Your task to perform on an android device: Search for "logitech g903" on bestbuy, select the first entry, add it to the cart, then select checkout. Image 0: 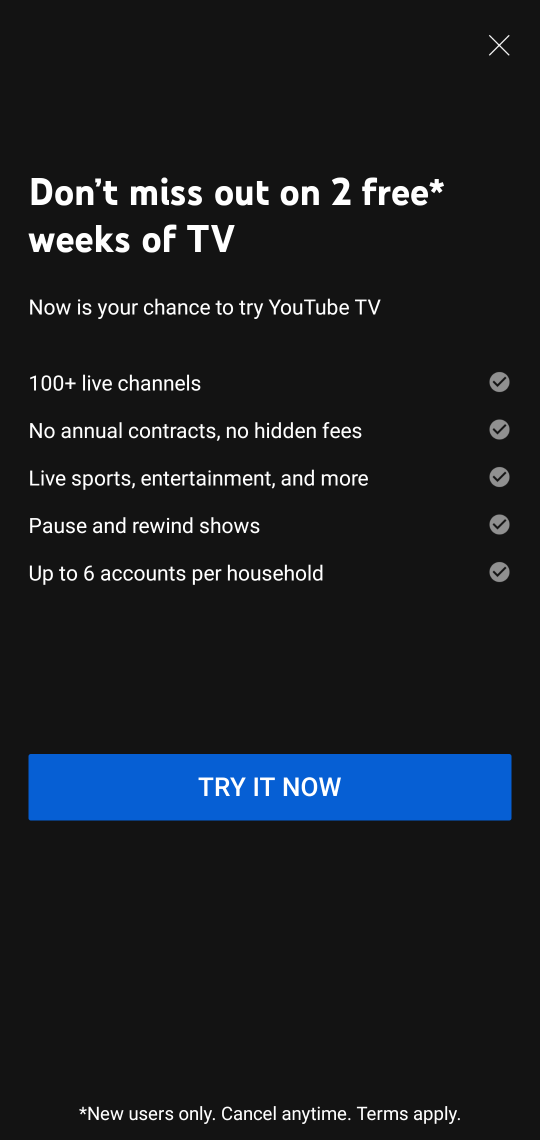
Step 0: press home button
Your task to perform on an android device: Search for "logitech g903" on bestbuy, select the first entry, add it to the cart, then select checkout. Image 1: 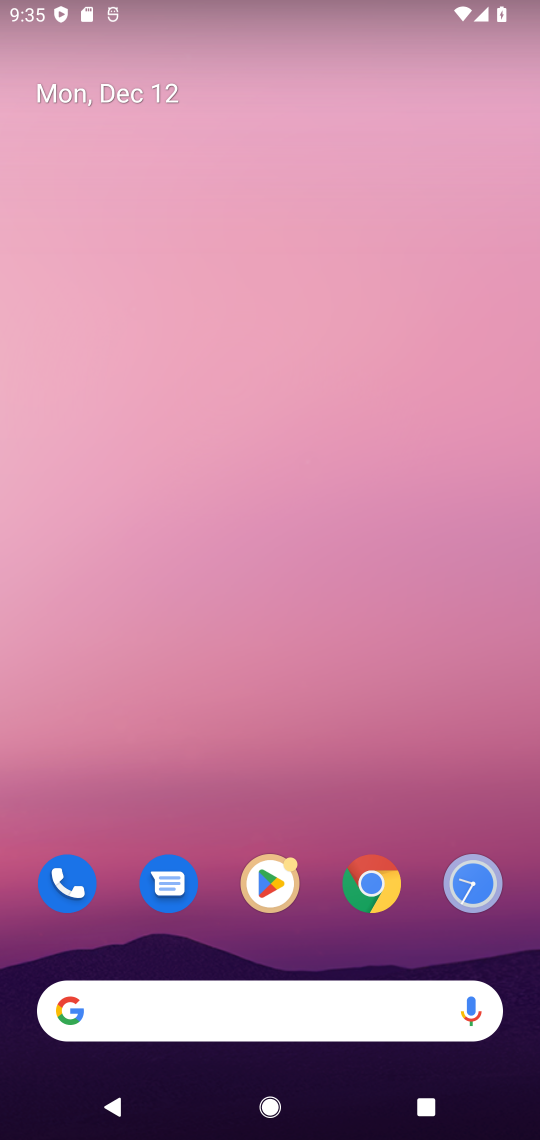
Step 1: click (207, 1008)
Your task to perform on an android device: Search for "logitech g903" on bestbuy, select the first entry, add it to the cart, then select checkout. Image 2: 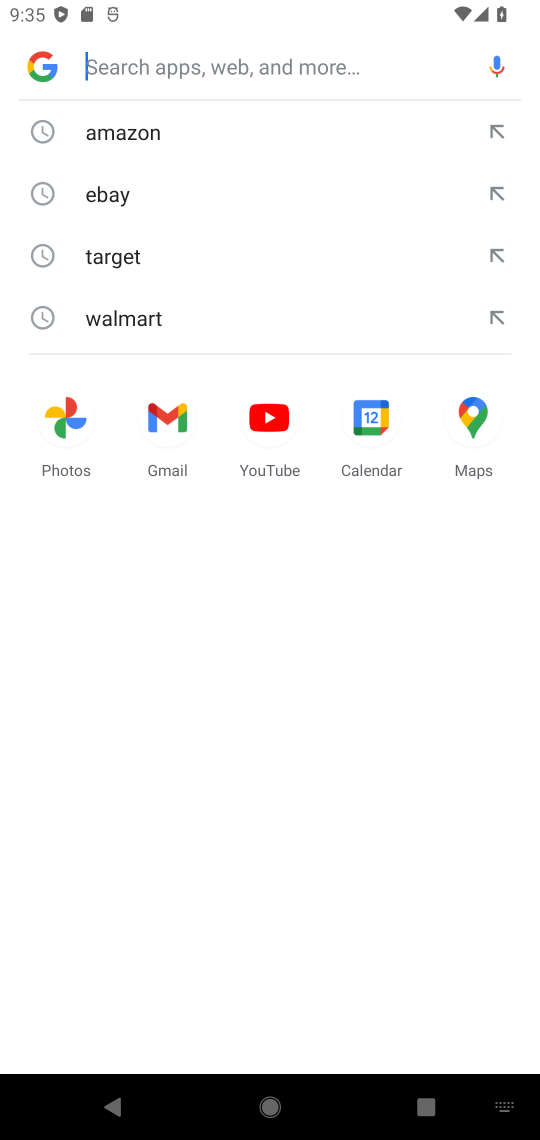
Step 2: type "bestbuy"
Your task to perform on an android device: Search for "logitech g903" on bestbuy, select the first entry, add it to the cart, then select checkout. Image 3: 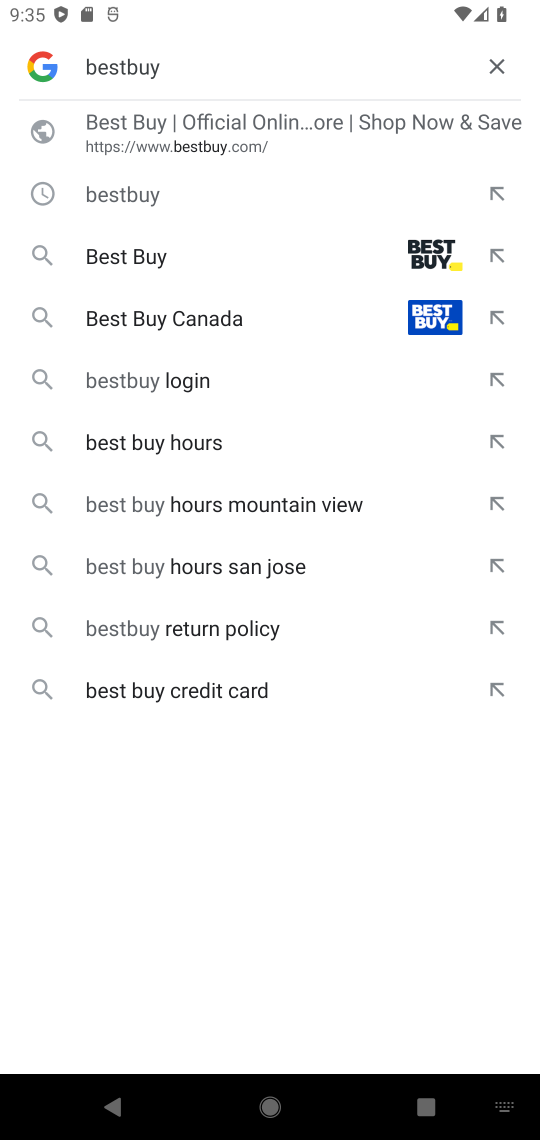
Step 3: click (188, 142)
Your task to perform on an android device: Search for "logitech g903" on bestbuy, select the first entry, add it to the cart, then select checkout. Image 4: 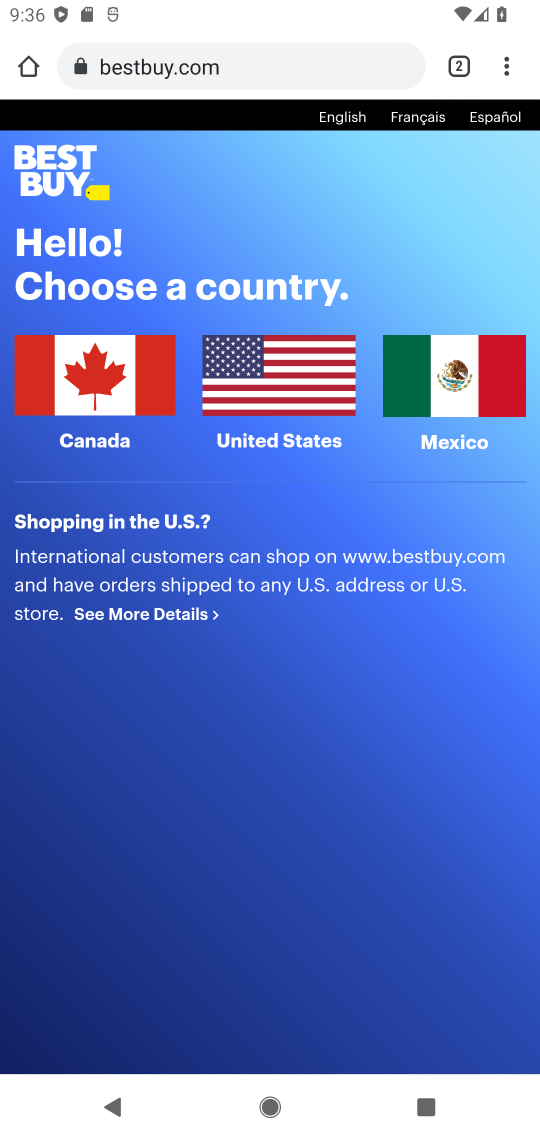
Step 4: click (287, 405)
Your task to perform on an android device: Search for "logitech g903" on bestbuy, select the first entry, add it to the cart, then select checkout. Image 5: 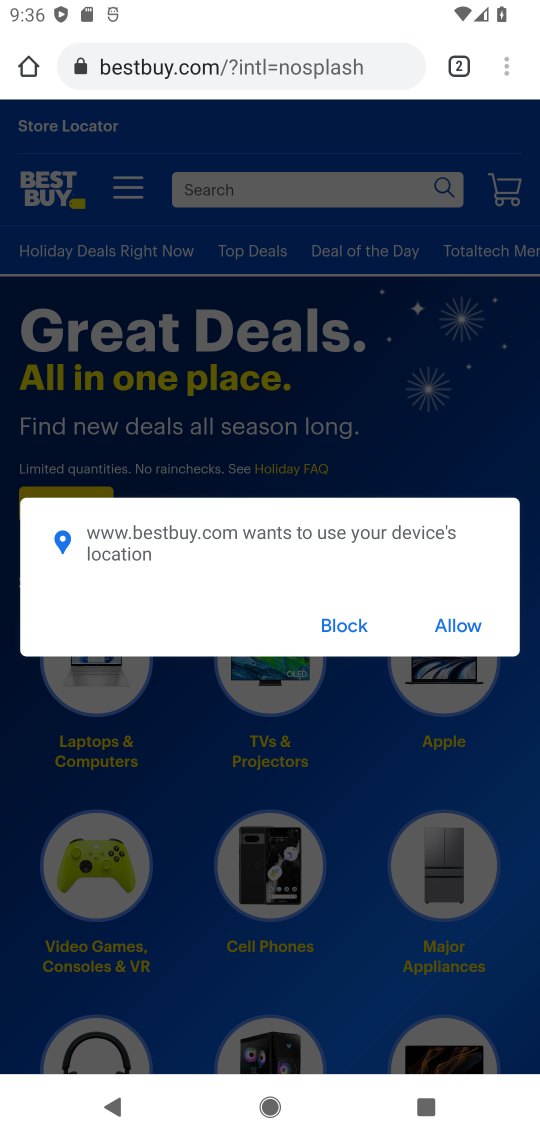
Step 5: click (356, 626)
Your task to perform on an android device: Search for "logitech g903" on bestbuy, select the first entry, add it to the cart, then select checkout. Image 6: 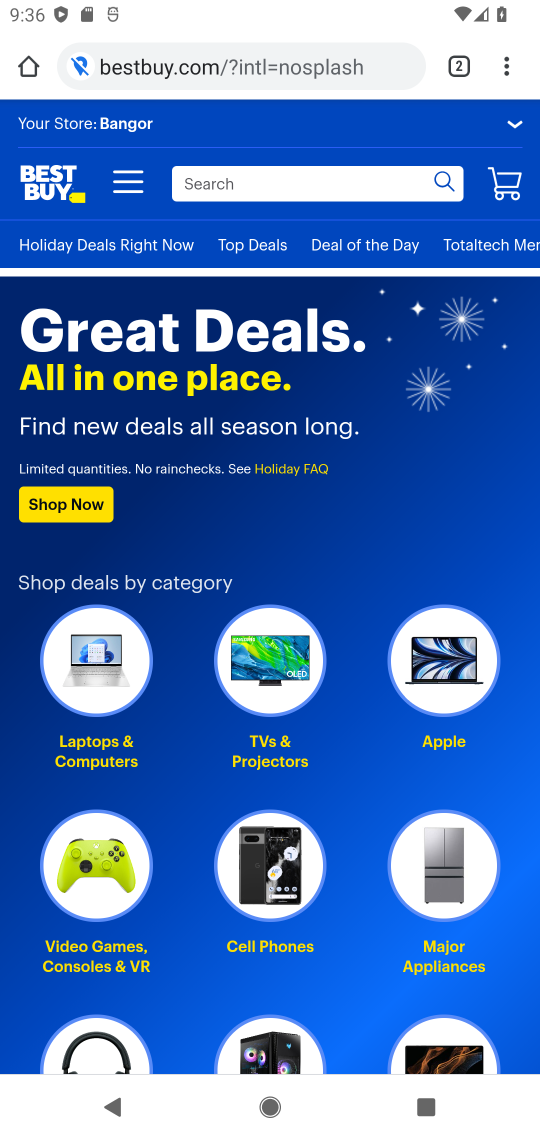
Step 6: click (278, 181)
Your task to perform on an android device: Search for "logitech g903" on bestbuy, select the first entry, add it to the cart, then select checkout. Image 7: 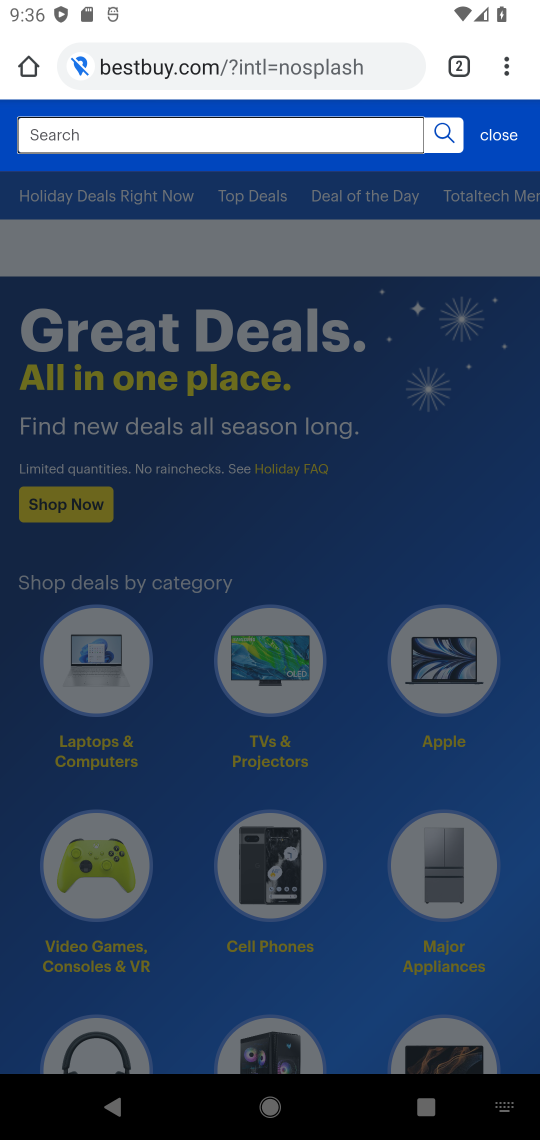
Step 7: type ""logitech g903""
Your task to perform on an android device: Search for "logitech g903" on bestbuy, select the first entry, add it to the cart, then select checkout. Image 8: 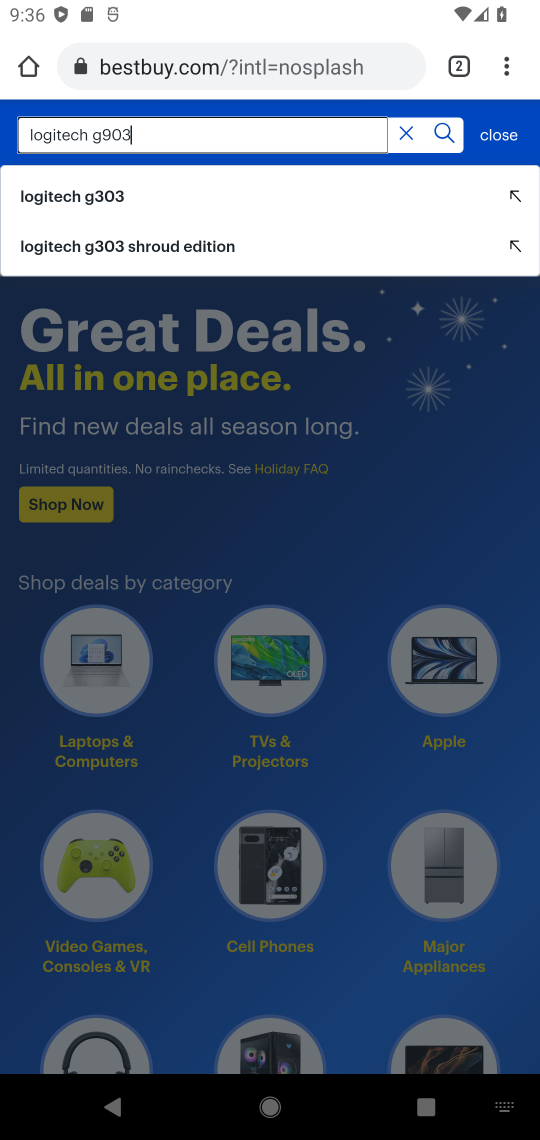
Step 8: click (125, 198)
Your task to perform on an android device: Search for "logitech g903" on bestbuy, select the first entry, add it to the cart, then select checkout. Image 9: 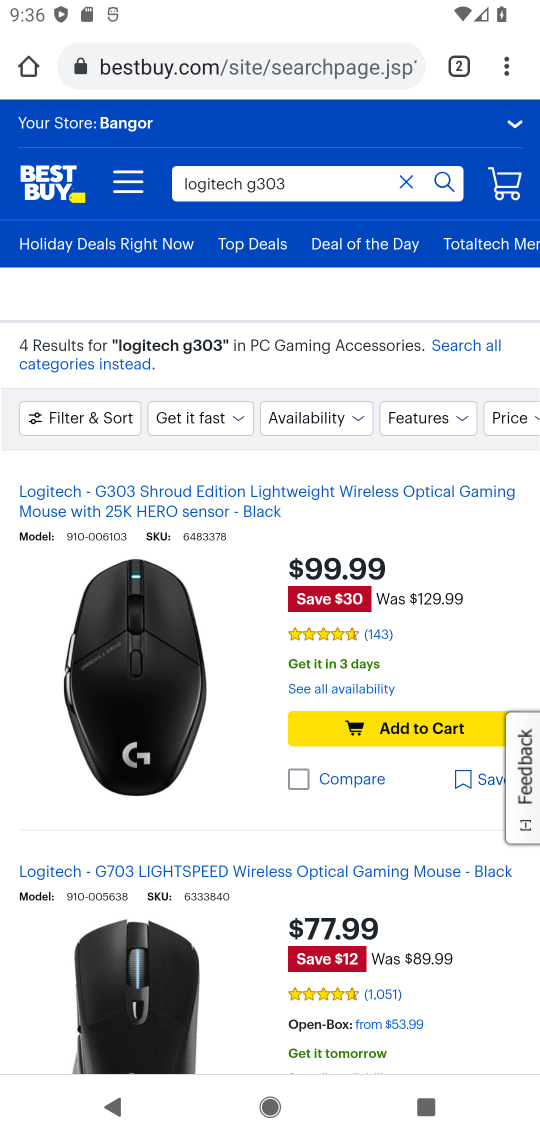
Step 9: click (403, 722)
Your task to perform on an android device: Search for "logitech g903" on bestbuy, select the first entry, add it to the cart, then select checkout. Image 10: 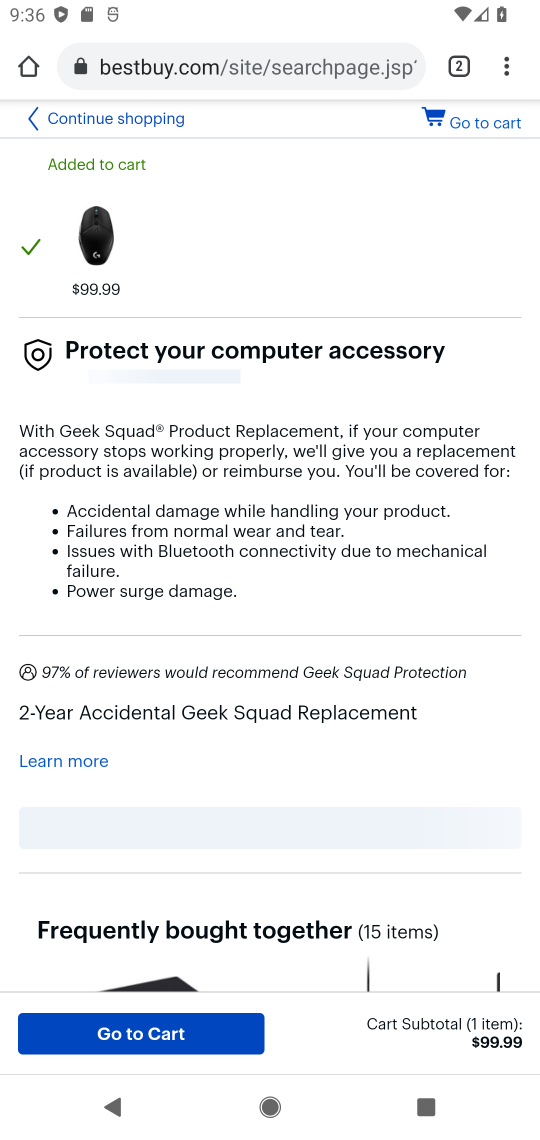
Step 10: click (465, 106)
Your task to perform on an android device: Search for "logitech g903" on bestbuy, select the first entry, add it to the cart, then select checkout. Image 11: 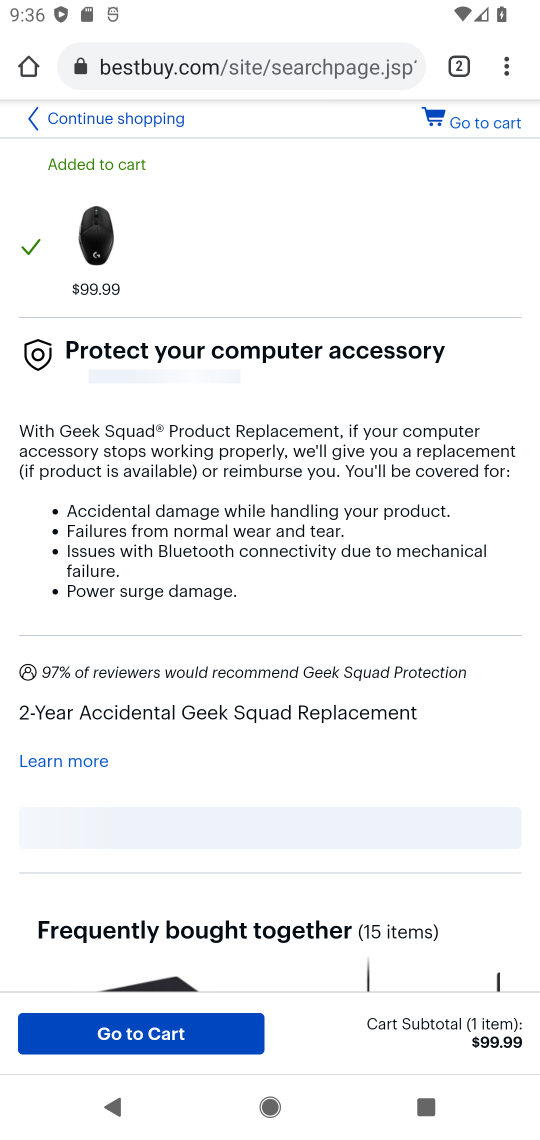
Step 11: click (464, 118)
Your task to perform on an android device: Search for "logitech g903" on bestbuy, select the first entry, add it to the cart, then select checkout. Image 12: 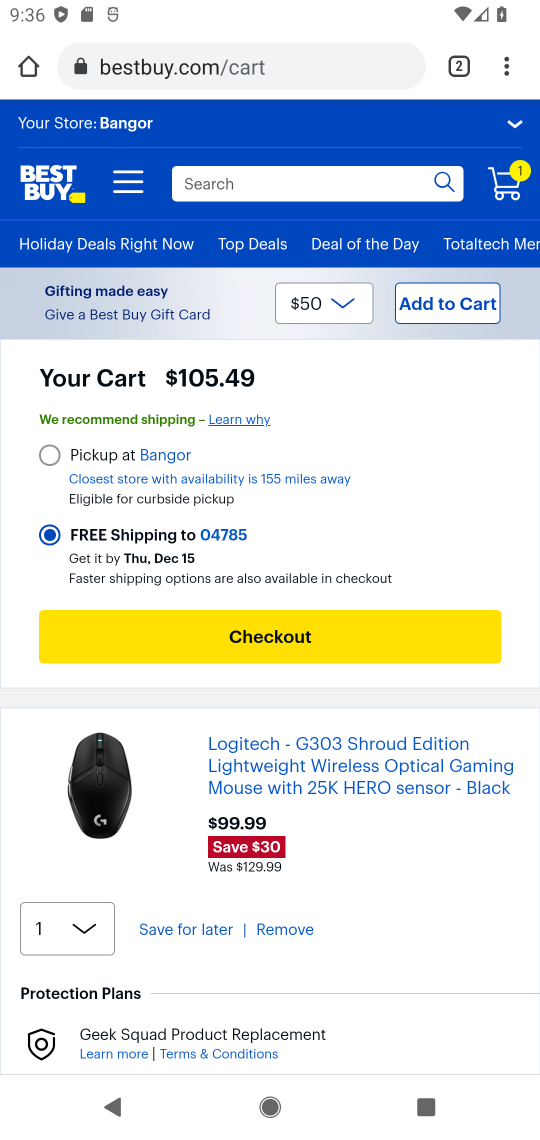
Step 12: click (291, 637)
Your task to perform on an android device: Search for "logitech g903" on bestbuy, select the first entry, add it to the cart, then select checkout. Image 13: 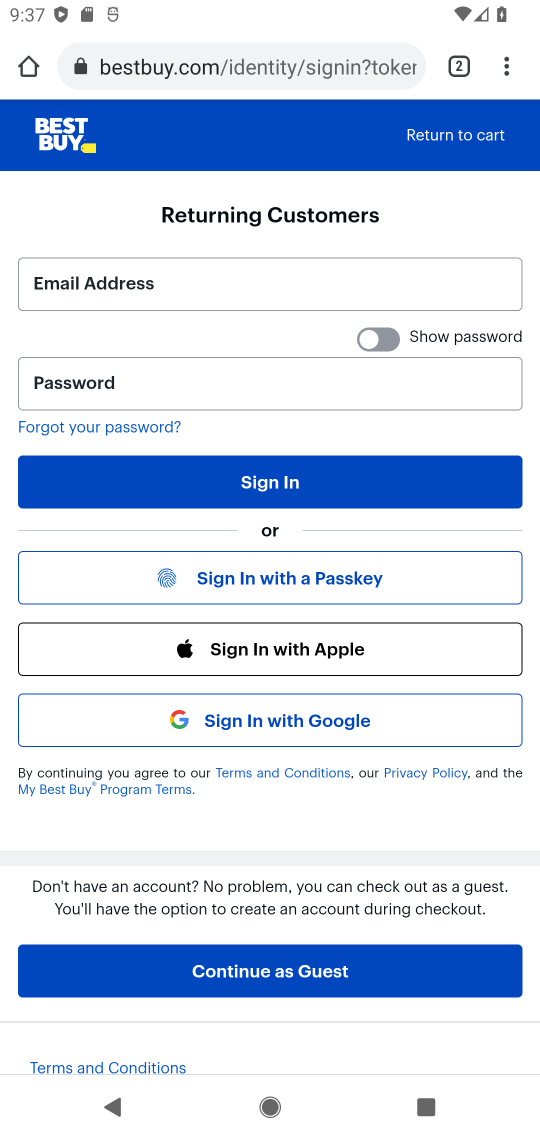
Step 13: task complete